Your task to perform on an android device: Open calendar and show me the fourth week of next month Image 0: 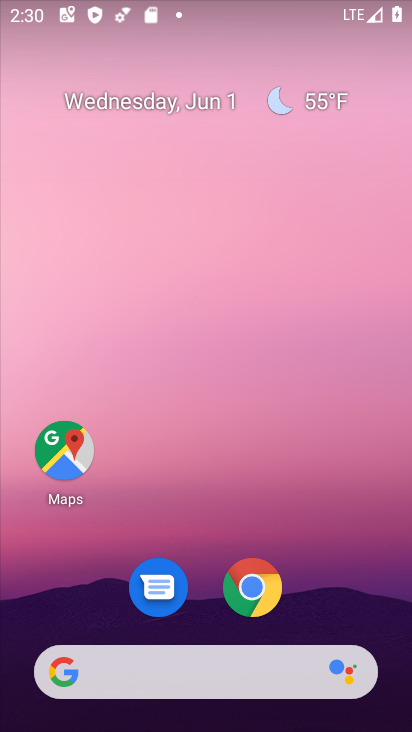
Step 0: drag from (253, 669) to (228, 27)
Your task to perform on an android device: Open calendar and show me the fourth week of next month Image 1: 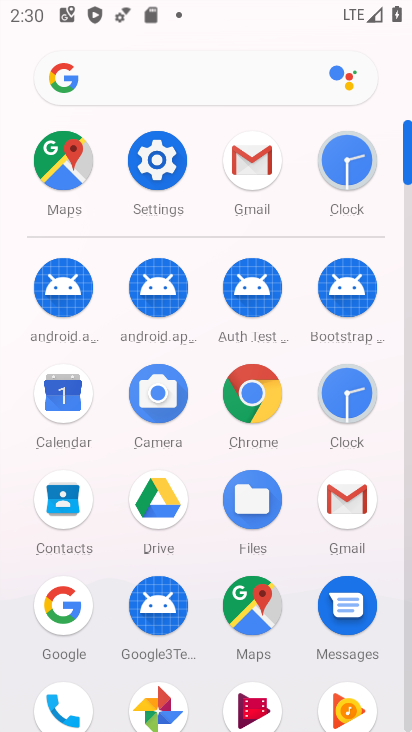
Step 1: click (48, 400)
Your task to perform on an android device: Open calendar and show me the fourth week of next month Image 2: 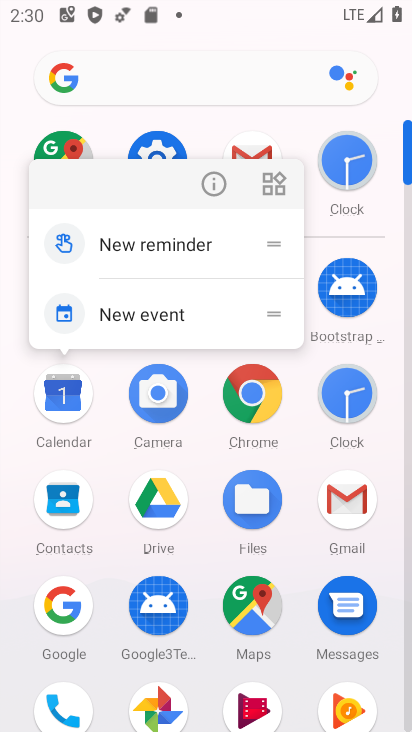
Step 2: click (54, 415)
Your task to perform on an android device: Open calendar and show me the fourth week of next month Image 3: 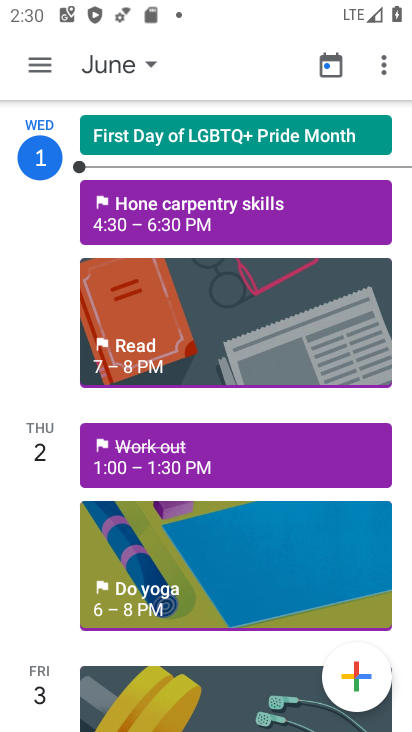
Step 3: click (47, 57)
Your task to perform on an android device: Open calendar and show me the fourth week of next month Image 4: 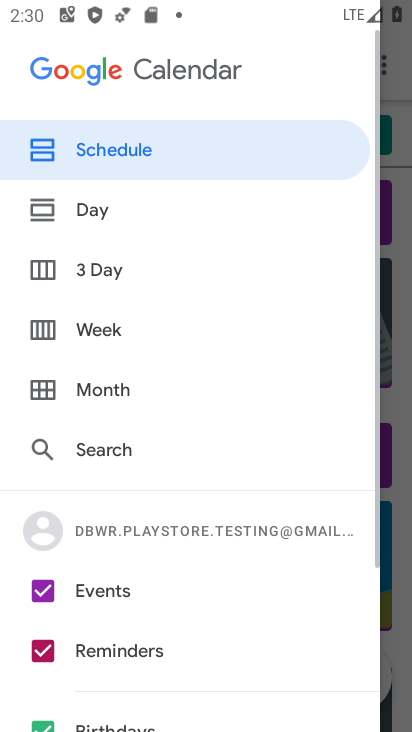
Step 4: click (132, 386)
Your task to perform on an android device: Open calendar and show me the fourth week of next month Image 5: 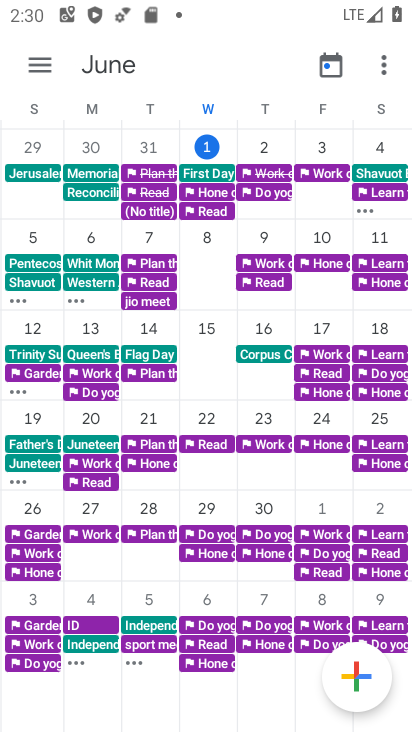
Step 5: task complete